Your task to perform on an android device: Open calendar and show me the third week of next month Image 0: 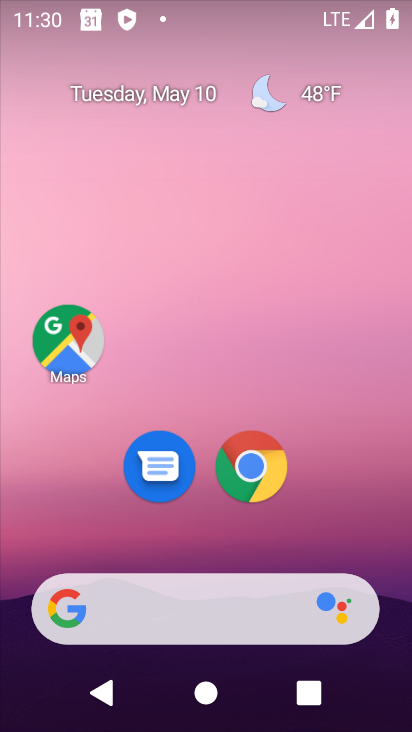
Step 0: drag from (190, 452) to (284, 47)
Your task to perform on an android device: Open calendar and show me the third week of next month Image 1: 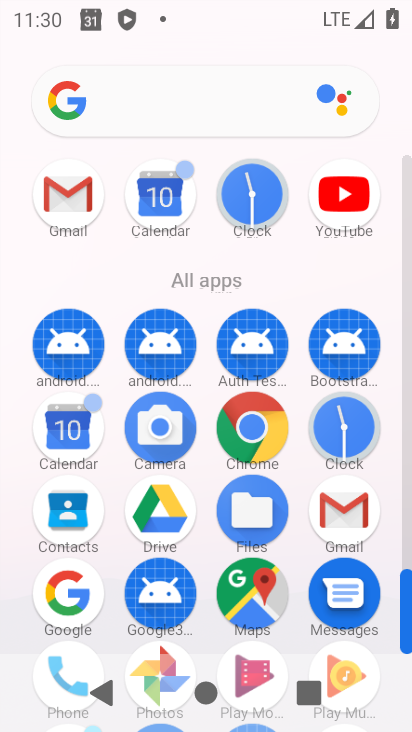
Step 1: click (156, 193)
Your task to perform on an android device: Open calendar and show me the third week of next month Image 2: 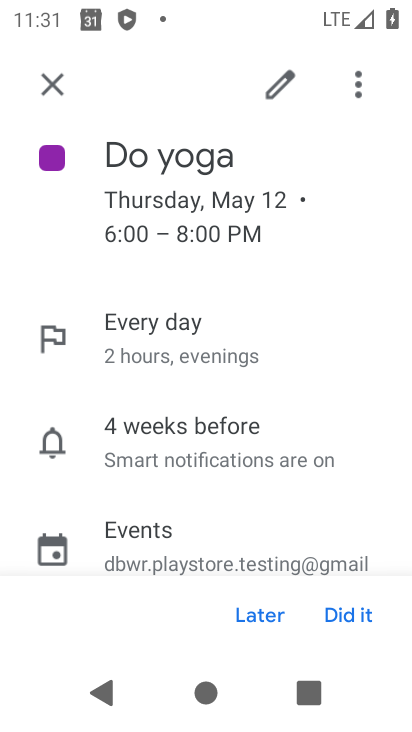
Step 2: click (45, 85)
Your task to perform on an android device: Open calendar and show me the third week of next month Image 3: 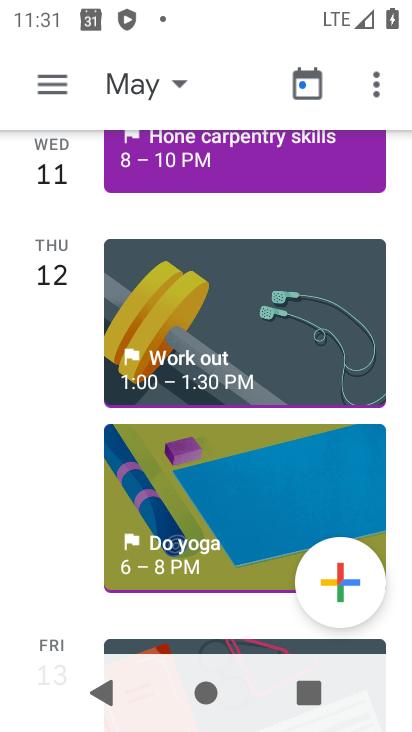
Step 3: click (170, 92)
Your task to perform on an android device: Open calendar and show me the third week of next month Image 4: 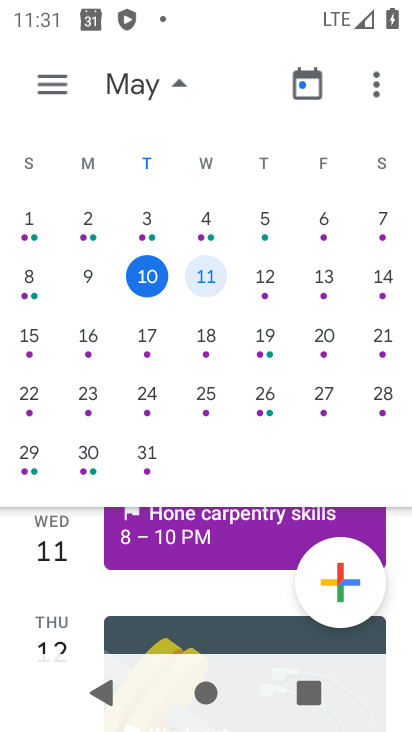
Step 4: drag from (359, 295) to (121, 259)
Your task to perform on an android device: Open calendar and show me the third week of next month Image 5: 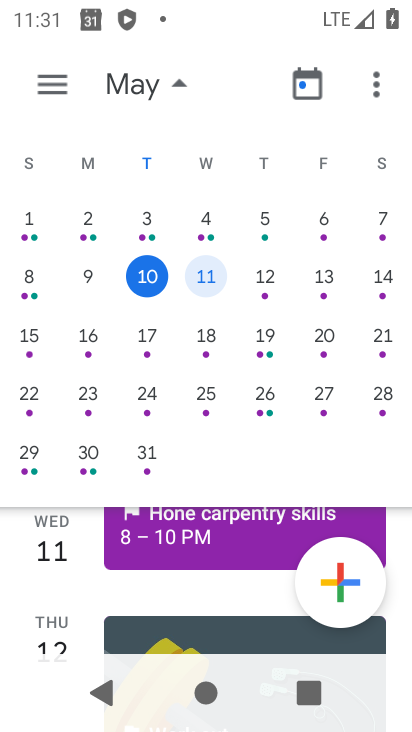
Step 5: drag from (371, 341) to (15, 314)
Your task to perform on an android device: Open calendar and show me the third week of next month Image 6: 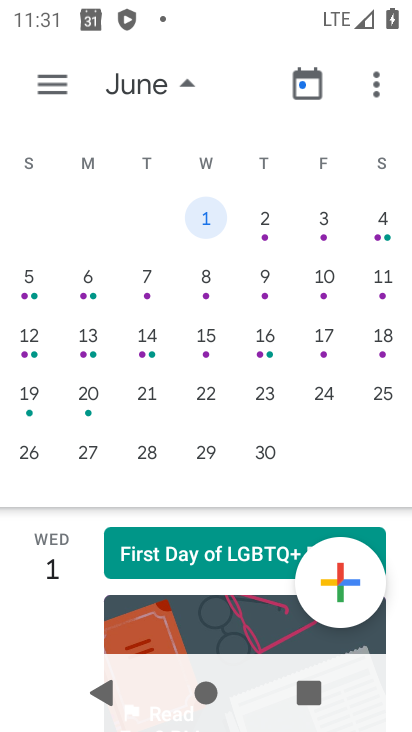
Step 6: click (88, 336)
Your task to perform on an android device: Open calendar and show me the third week of next month Image 7: 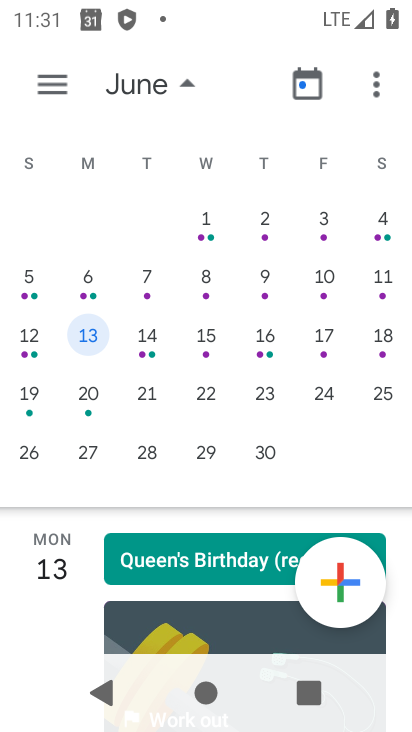
Step 7: task complete